Your task to perform on an android device: change the clock display to show seconds Image 0: 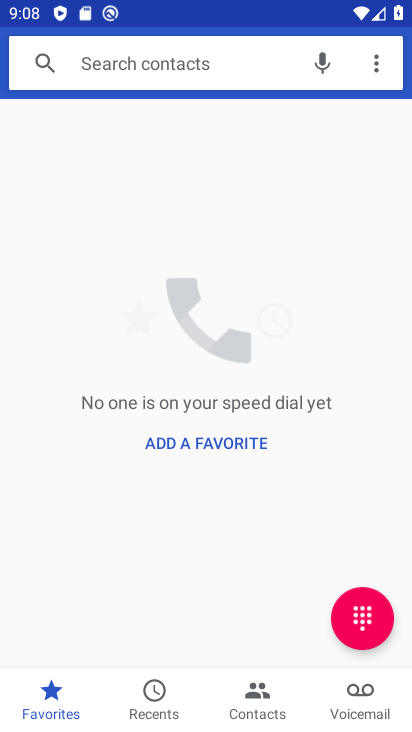
Step 0: click (136, 607)
Your task to perform on an android device: change the clock display to show seconds Image 1: 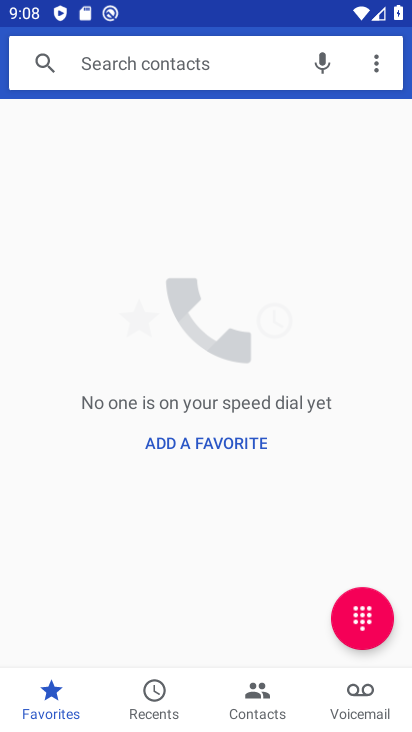
Step 1: press home button
Your task to perform on an android device: change the clock display to show seconds Image 2: 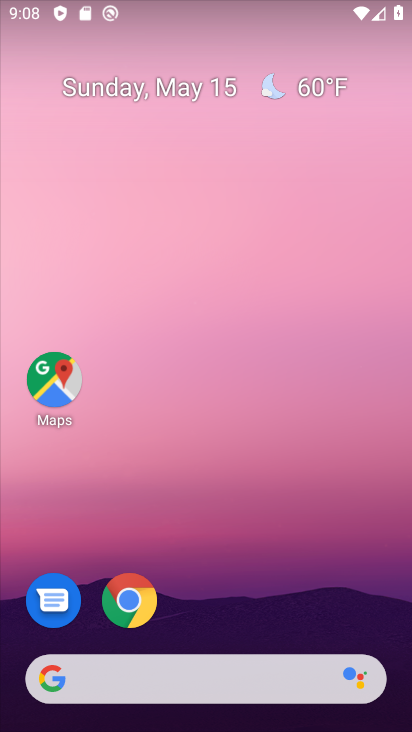
Step 2: drag from (232, 658) to (341, 111)
Your task to perform on an android device: change the clock display to show seconds Image 3: 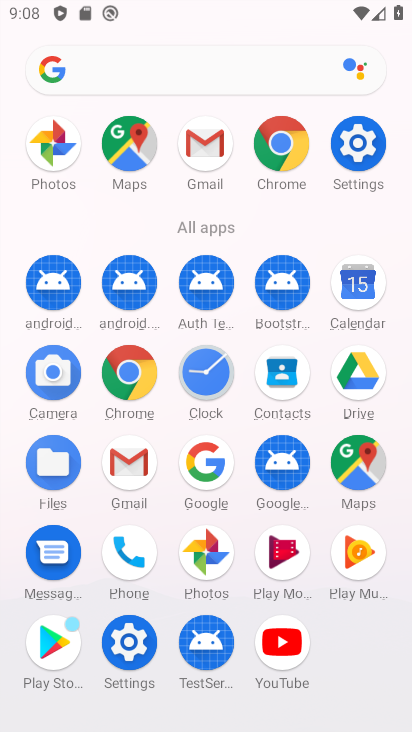
Step 3: click (200, 389)
Your task to perform on an android device: change the clock display to show seconds Image 4: 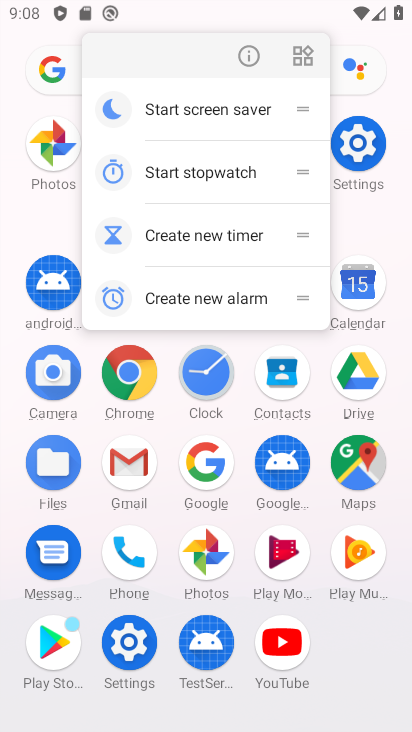
Step 4: click (204, 376)
Your task to perform on an android device: change the clock display to show seconds Image 5: 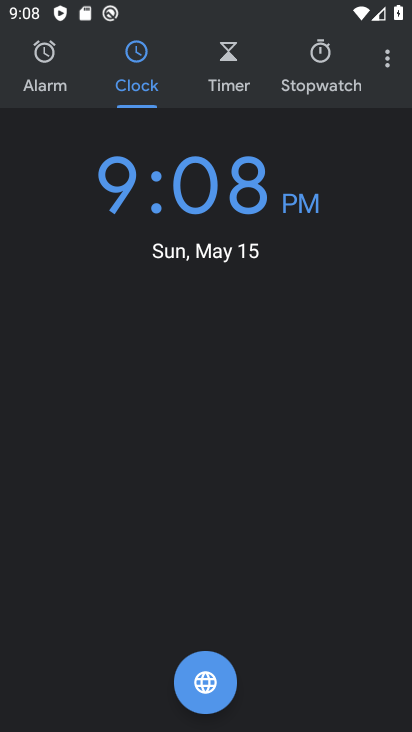
Step 5: click (378, 68)
Your task to perform on an android device: change the clock display to show seconds Image 6: 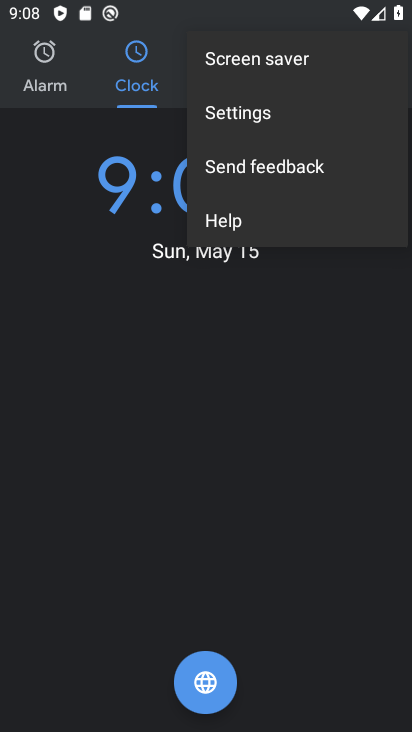
Step 6: click (361, 103)
Your task to perform on an android device: change the clock display to show seconds Image 7: 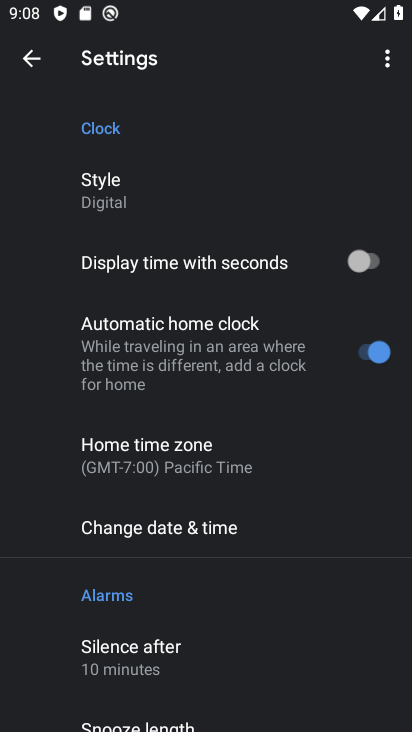
Step 7: click (380, 257)
Your task to perform on an android device: change the clock display to show seconds Image 8: 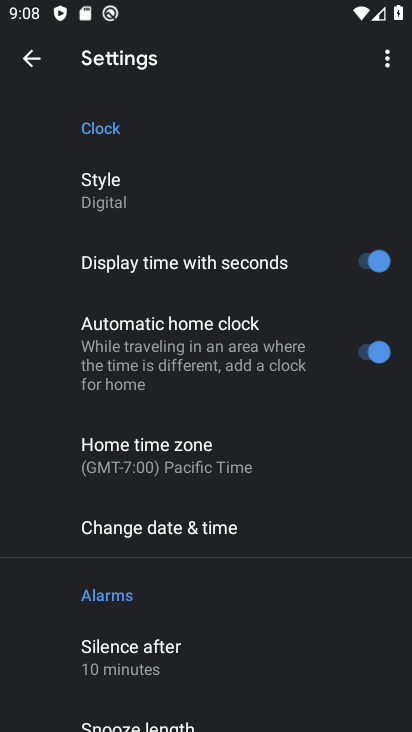
Step 8: task complete